Your task to perform on an android device: Is it going to rain tomorrow? Image 0: 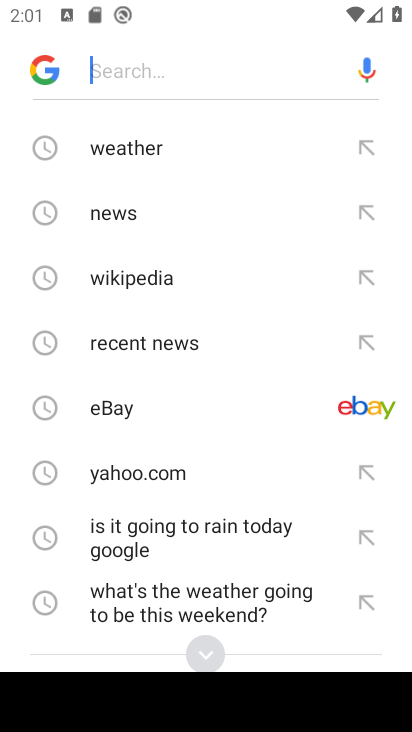
Step 0: type "Is it going to rain tomorrow?"
Your task to perform on an android device: Is it going to rain tomorrow? Image 1: 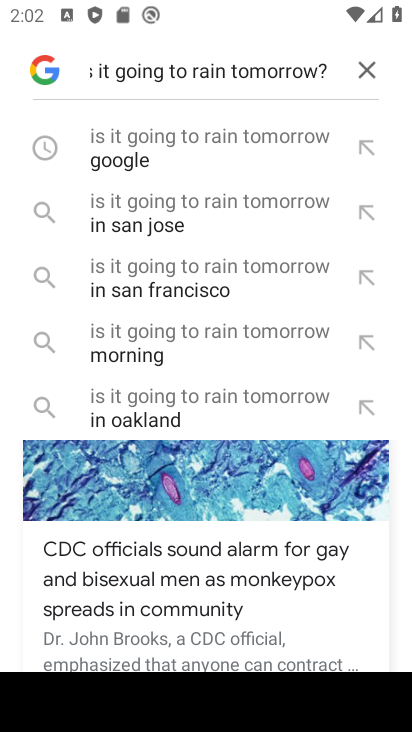
Step 1: click (261, 131)
Your task to perform on an android device: Is it going to rain tomorrow? Image 2: 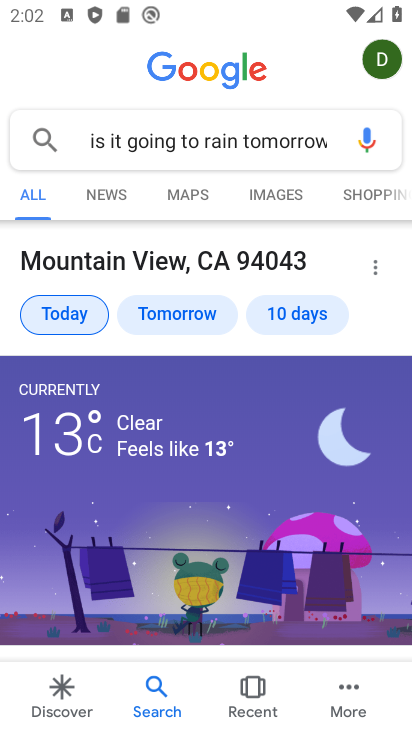
Step 2: task complete